Your task to perform on an android device: turn off javascript in the chrome app Image 0: 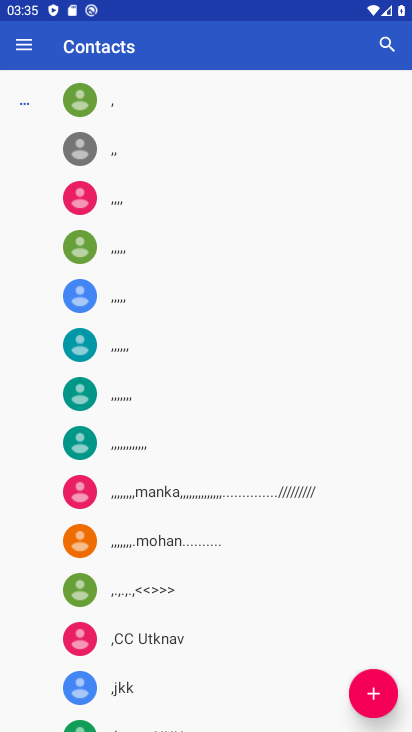
Step 0: press home button
Your task to perform on an android device: turn off javascript in the chrome app Image 1: 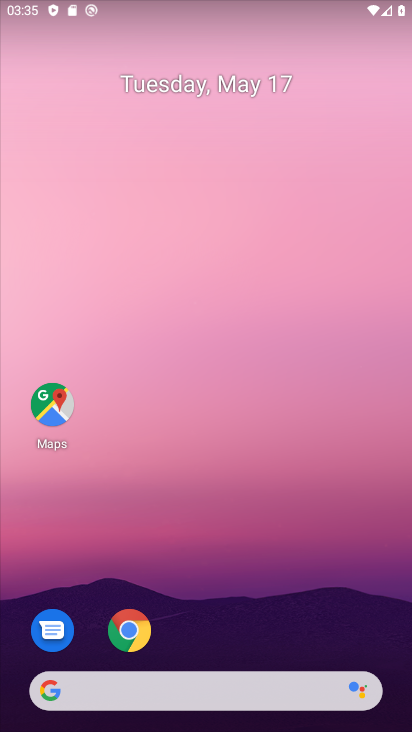
Step 1: drag from (169, 652) to (225, 158)
Your task to perform on an android device: turn off javascript in the chrome app Image 2: 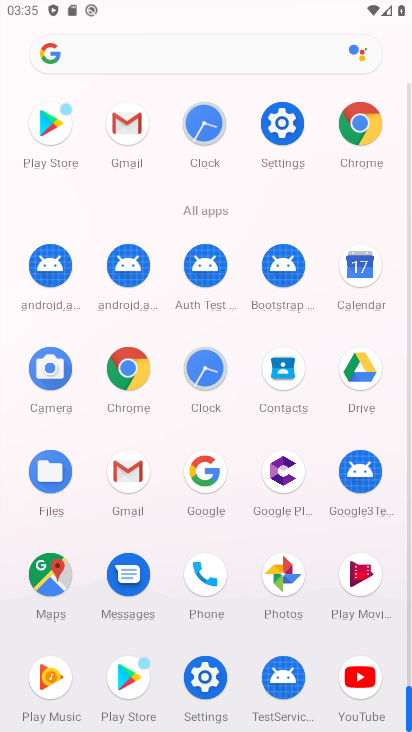
Step 2: drag from (178, 541) to (218, 320)
Your task to perform on an android device: turn off javascript in the chrome app Image 3: 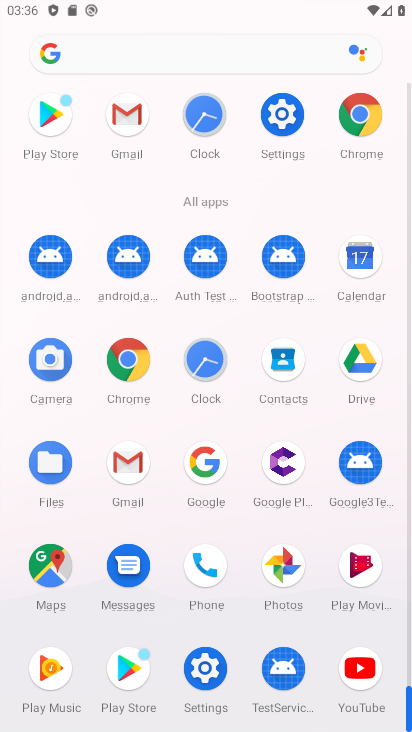
Step 3: click (131, 352)
Your task to perform on an android device: turn off javascript in the chrome app Image 4: 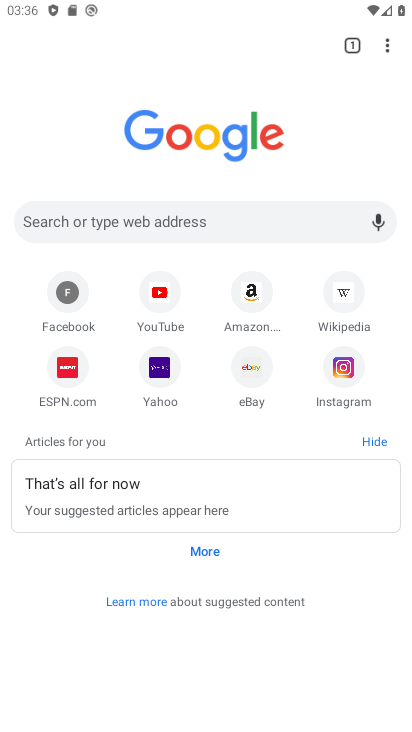
Step 4: drag from (398, 44) to (320, 370)
Your task to perform on an android device: turn off javascript in the chrome app Image 5: 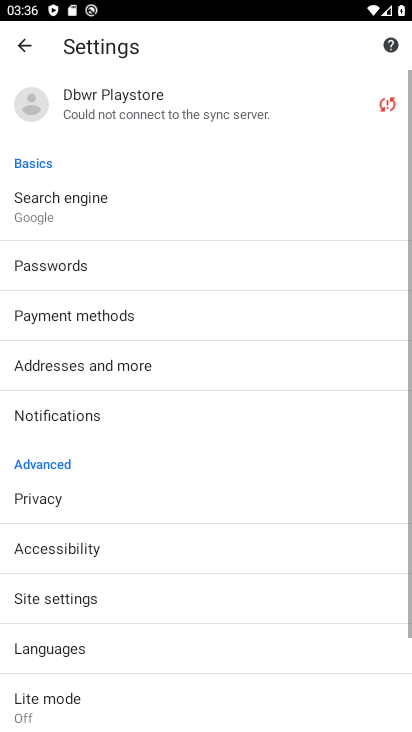
Step 5: drag from (161, 633) to (237, 319)
Your task to perform on an android device: turn off javascript in the chrome app Image 6: 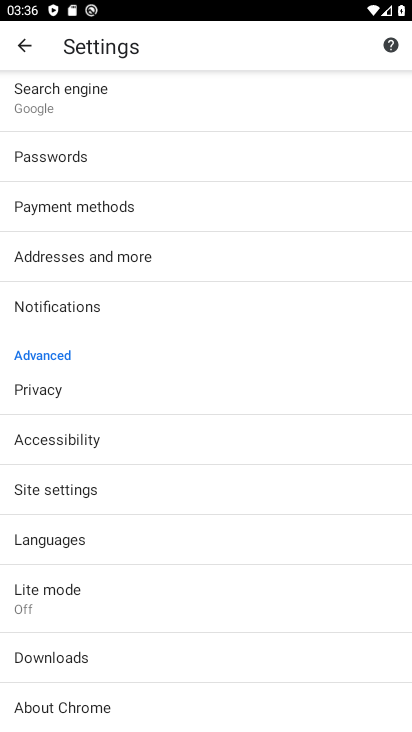
Step 6: click (125, 496)
Your task to perform on an android device: turn off javascript in the chrome app Image 7: 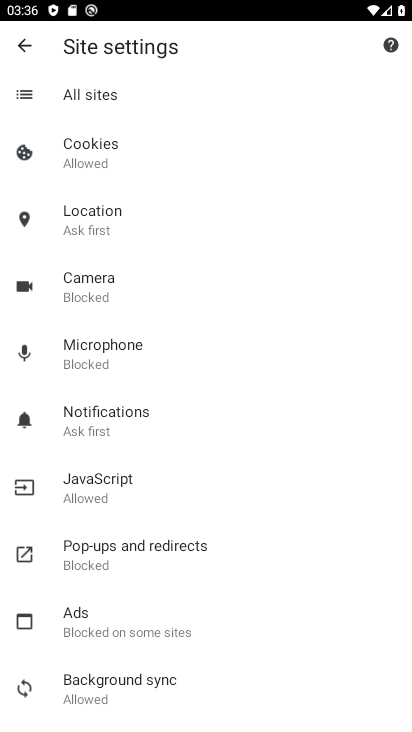
Step 7: click (188, 488)
Your task to perform on an android device: turn off javascript in the chrome app Image 8: 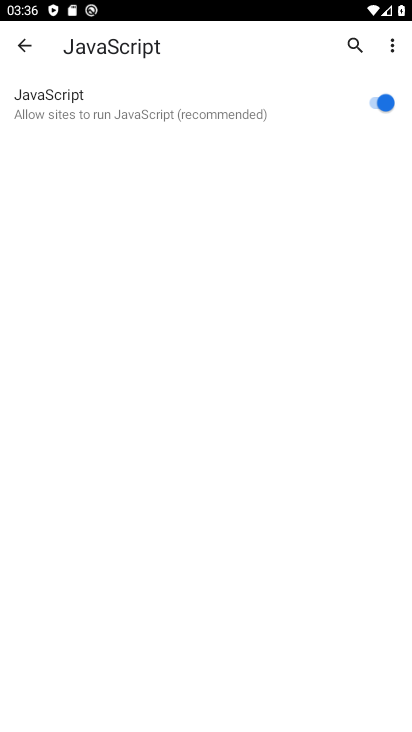
Step 8: click (371, 104)
Your task to perform on an android device: turn off javascript in the chrome app Image 9: 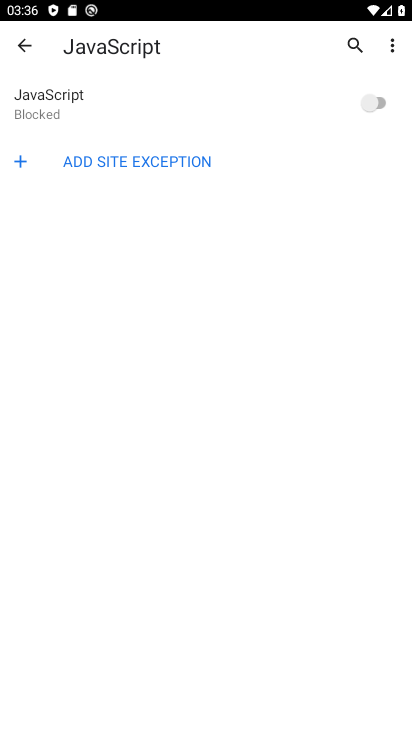
Step 9: task complete